Your task to perform on an android device: Go to Yahoo.com Image 0: 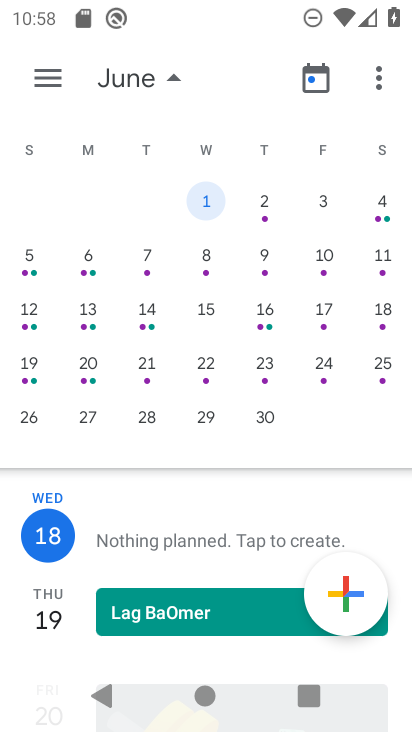
Step 0: press home button
Your task to perform on an android device: Go to Yahoo.com Image 1: 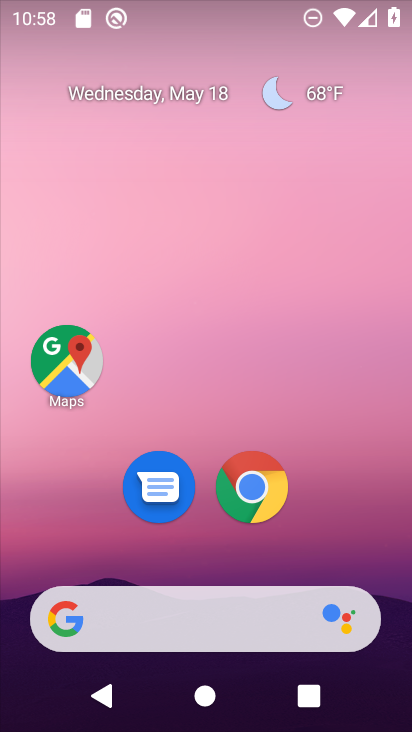
Step 1: drag from (368, 554) to (281, 171)
Your task to perform on an android device: Go to Yahoo.com Image 2: 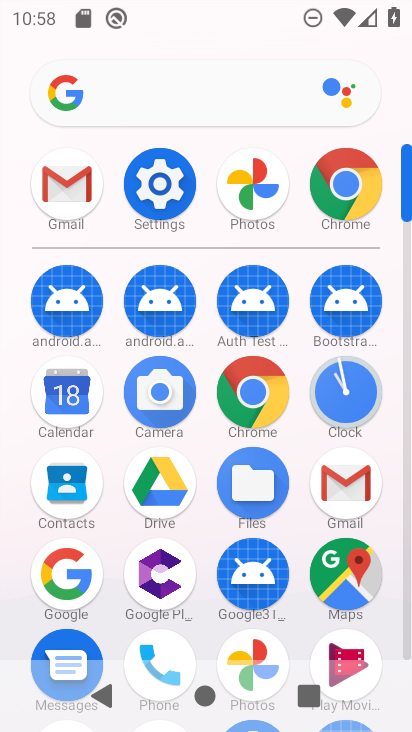
Step 2: click (373, 193)
Your task to perform on an android device: Go to Yahoo.com Image 3: 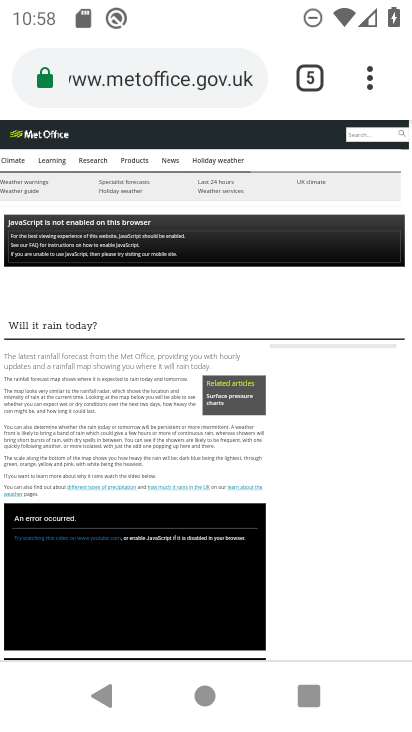
Step 3: click (161, 80)
Your task to perform on an android device: Go to Yahoo.com Image 4: 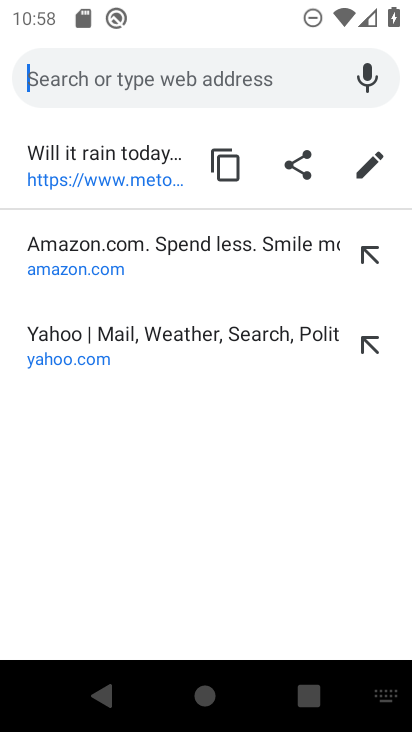
Step 4: click (251, 328)
Your task to perform on an android device: Go to Yahoo.com Image 5: 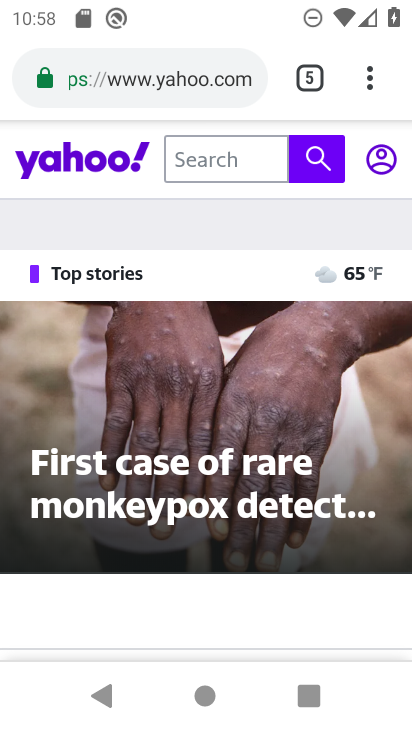
Step 5: task complete